Your task to perform on an android device: toggle improve location accuracy Image 0: 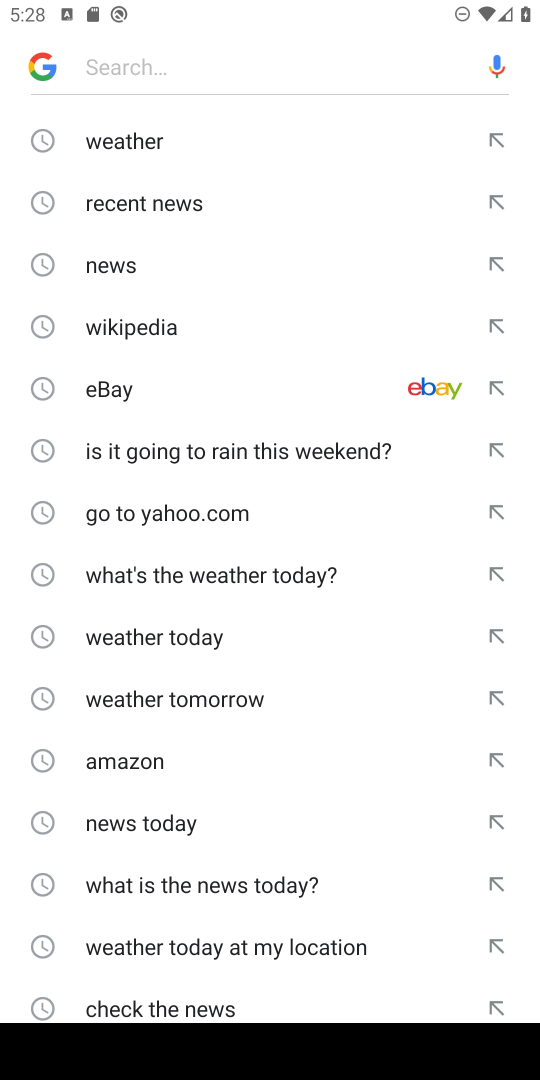
Step 0: press home button
Your task to perform on an android device: toggle improve location accuracy Image 1: 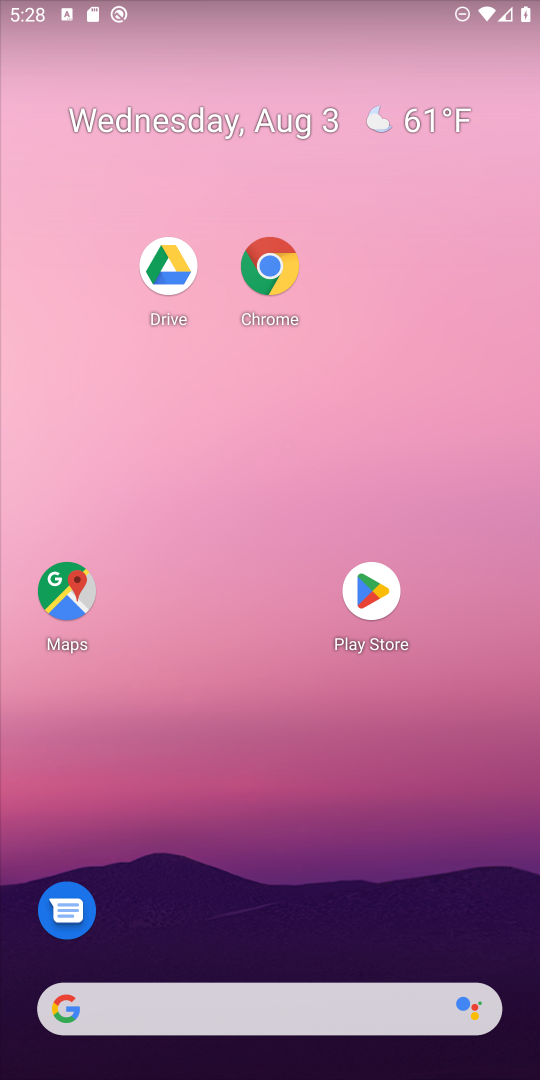
Step 1: drag from (299, 1017) to (394, 43)
Your task to perform on an android device: toggle improve location accuracy Image 2: 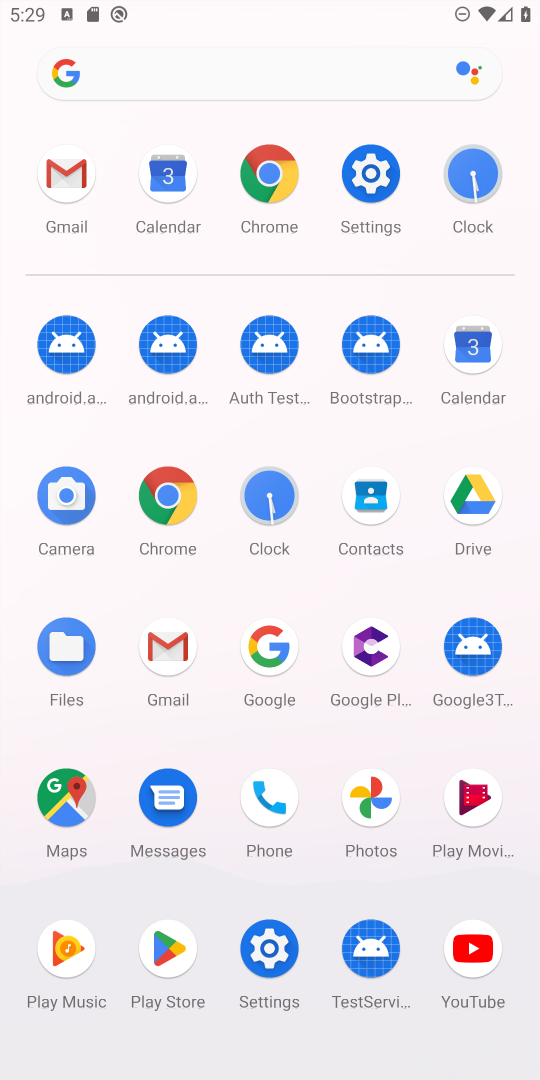
Step 2: click (367, 167)
Your task to perform on an android device: toggle improve location accuracy Image 3: 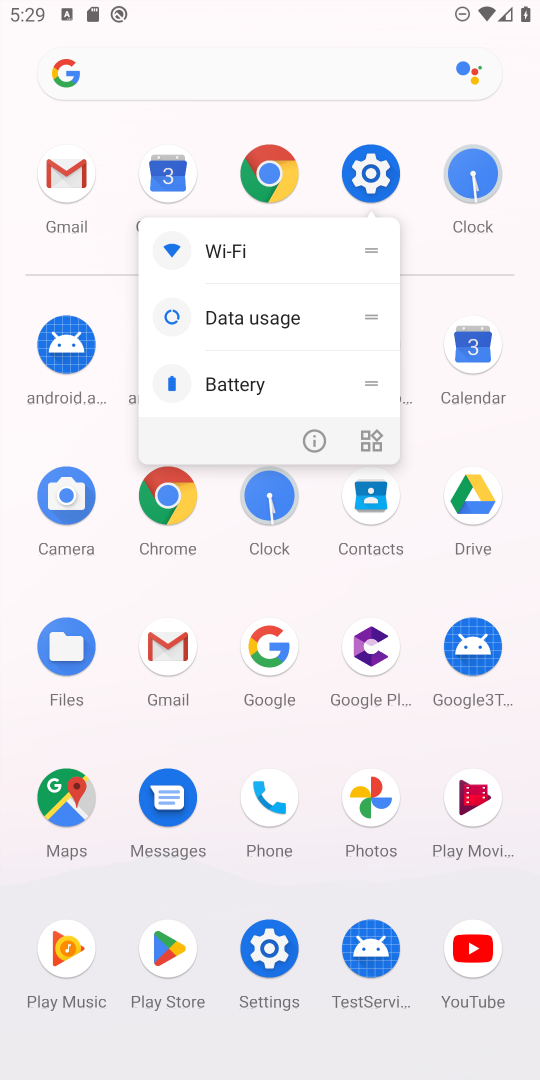
Step 3: click (372, 164)
Your task to perform on an android device: toggle improve location accuracy Image 4: 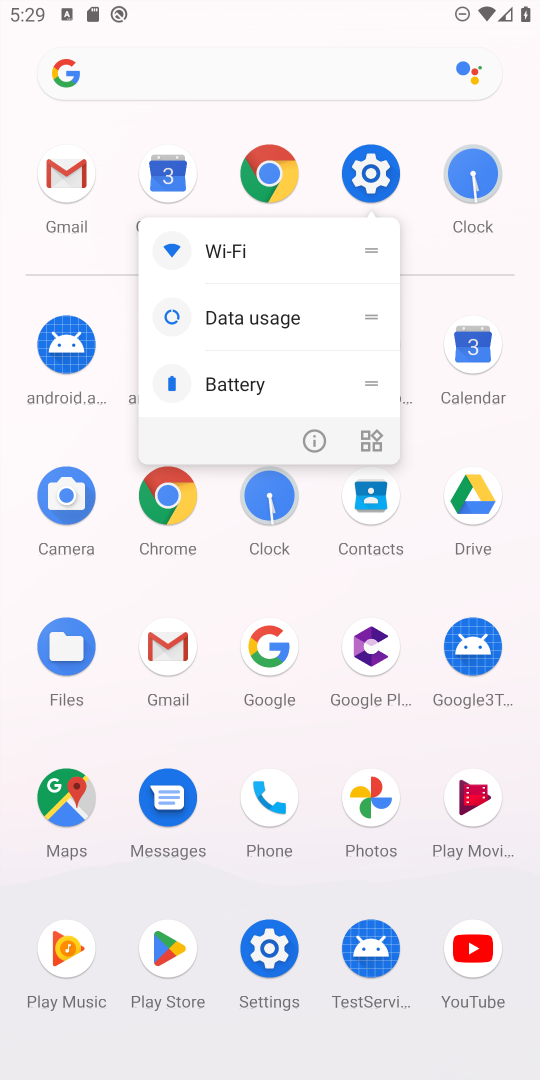
Step 4: click (378, 177)
Your task to perform on an android device: toggle improve location accuracy Image 5: 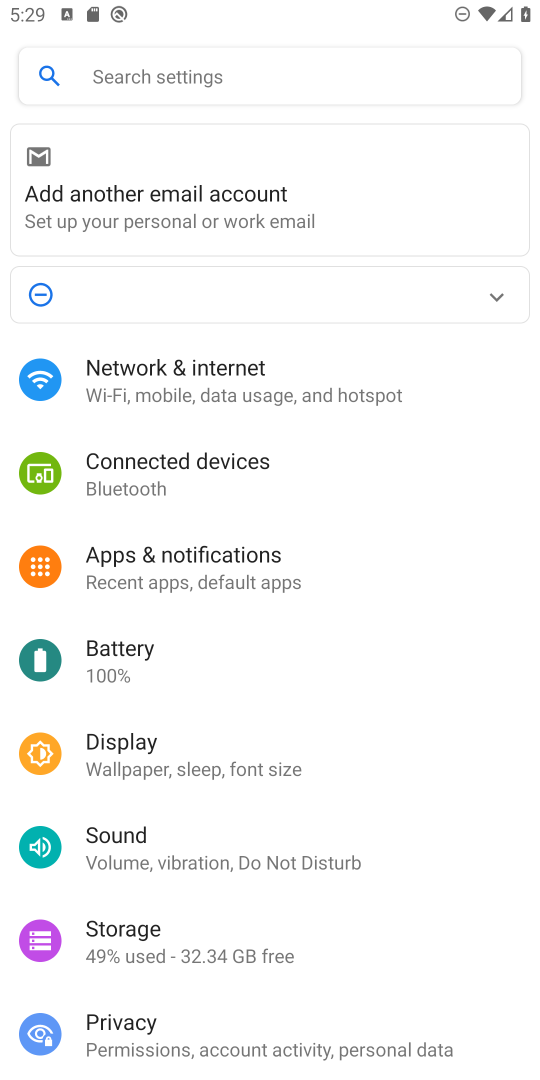
Step 5: drag from (176, 986) to (329, 417)
Your task to perform on an android device: toggle improve location accuracy Image 6: 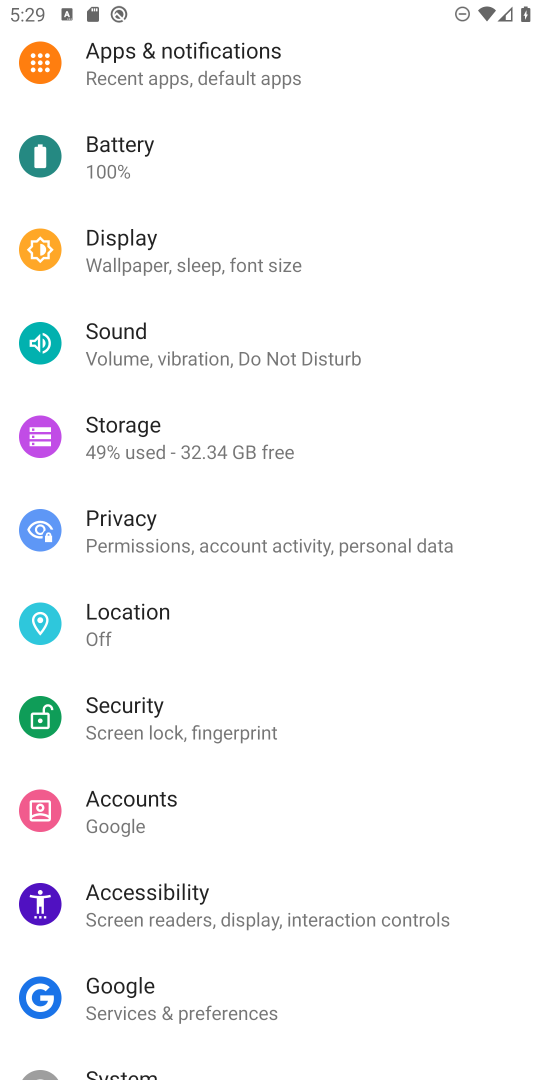
Step 6: click (163, 618)
Your task to perform on an android device: toggle improve location accuracy Image 7: 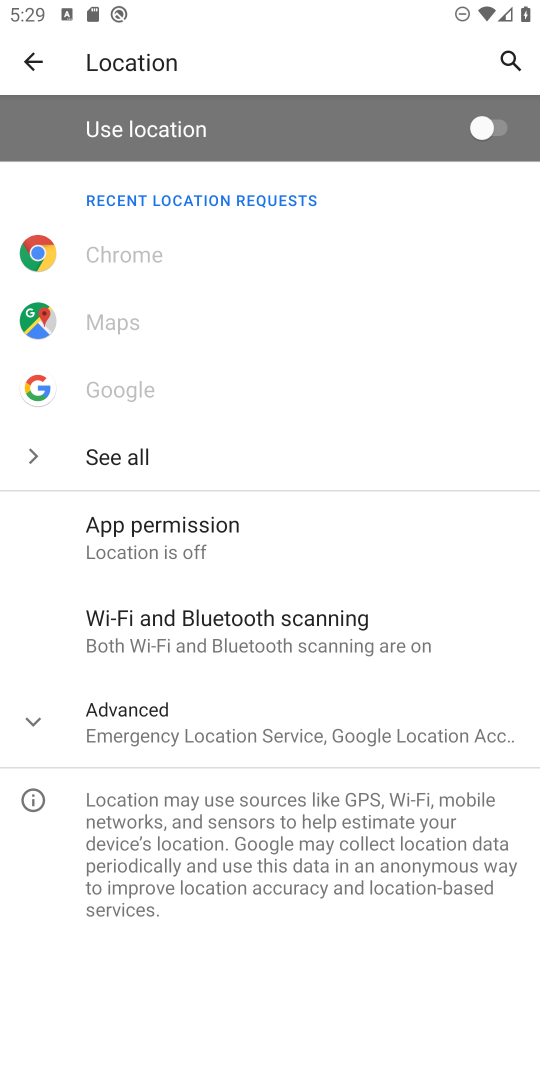
Step 7: click (170, 709)
Your task to perform on an android device: toggle improve location accuracy Image 8: 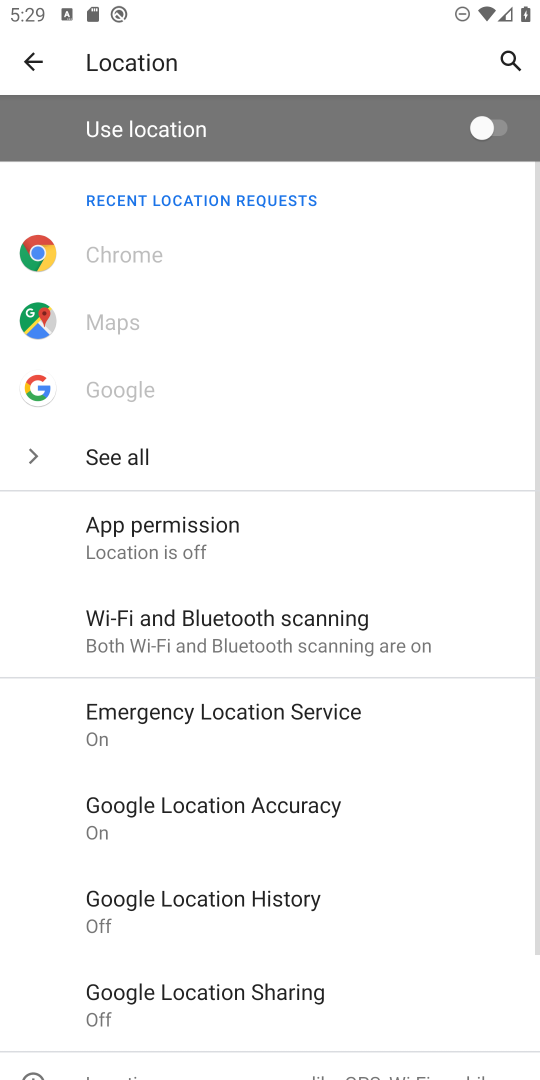
Step 8: click (285, 819)
Your task to perform on an android device: toggle improve location accuracy Image 9: 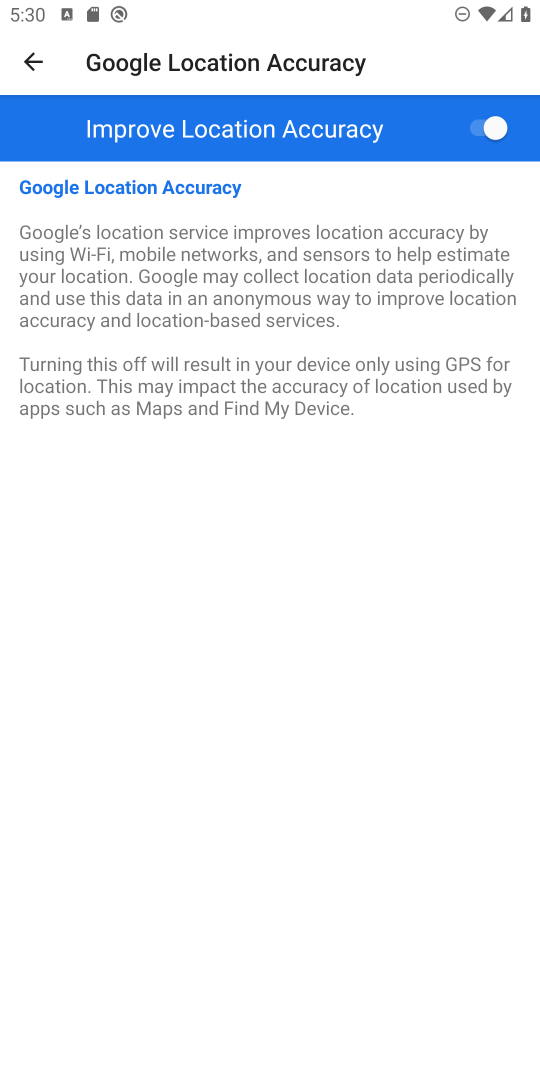
Step 9: click (488, 121)
Your task to perform on an android device: toggle improve location accuracy Image 10: 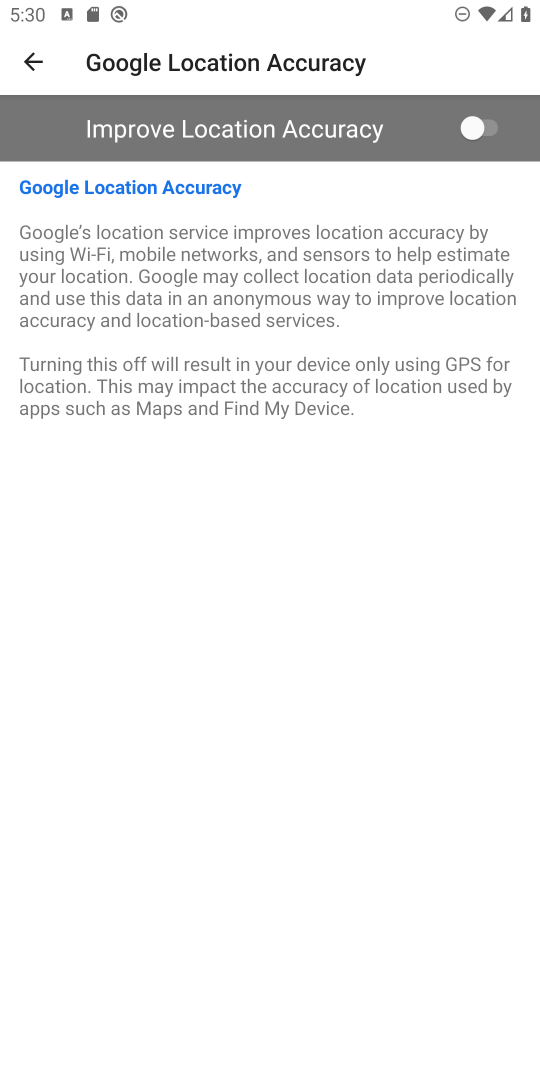
Step 10: task complete